Your task to perform on an android device: Google the capital of the United States Image 0: 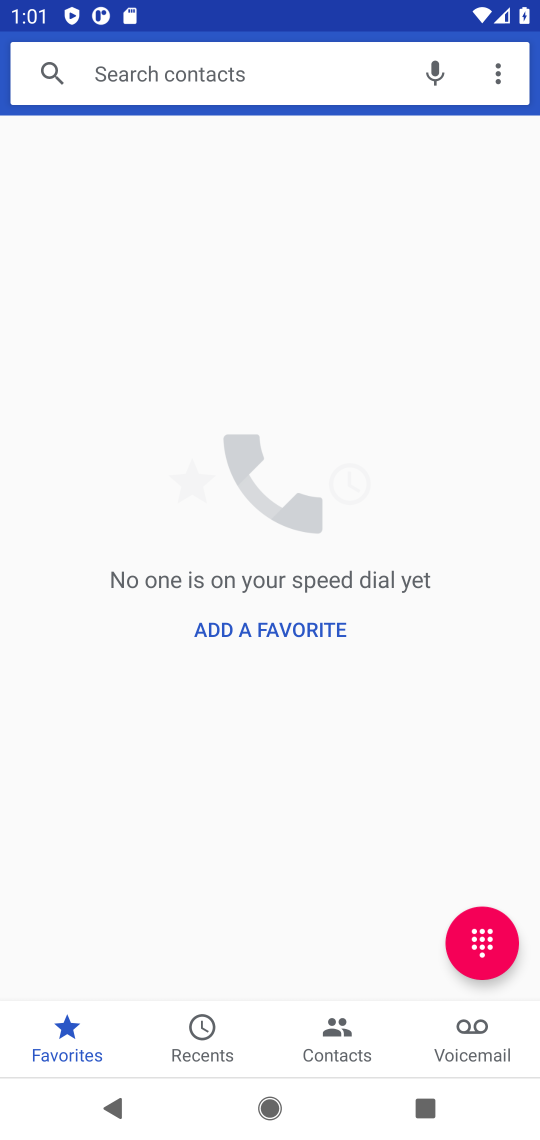
Step 0: press home button
Your task to perform on an android device: Google the capital of the United States Image 1: 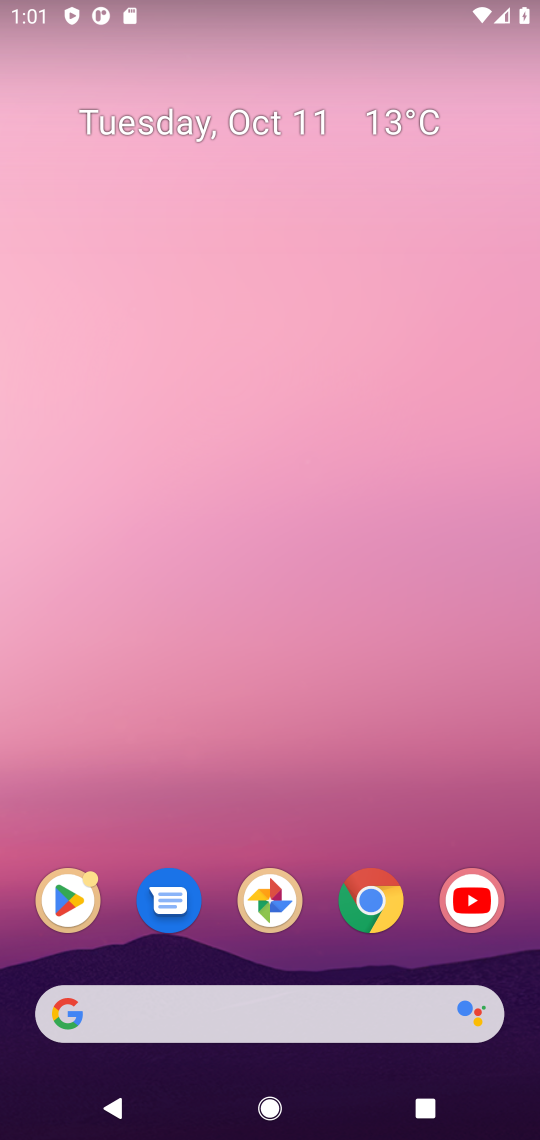
Step 1: click (352, 907)
Your task to perform on an android device: Google the capital of the United States Image 2: 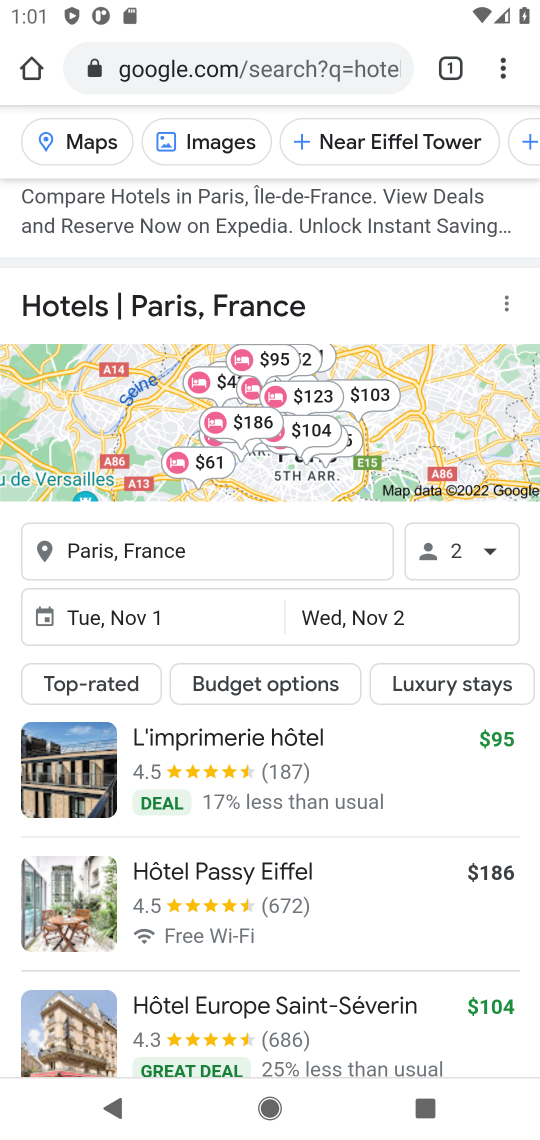
Step 2: click (308, 73)
Your task to perform on an android device: Google the capital of the United States Image 3: 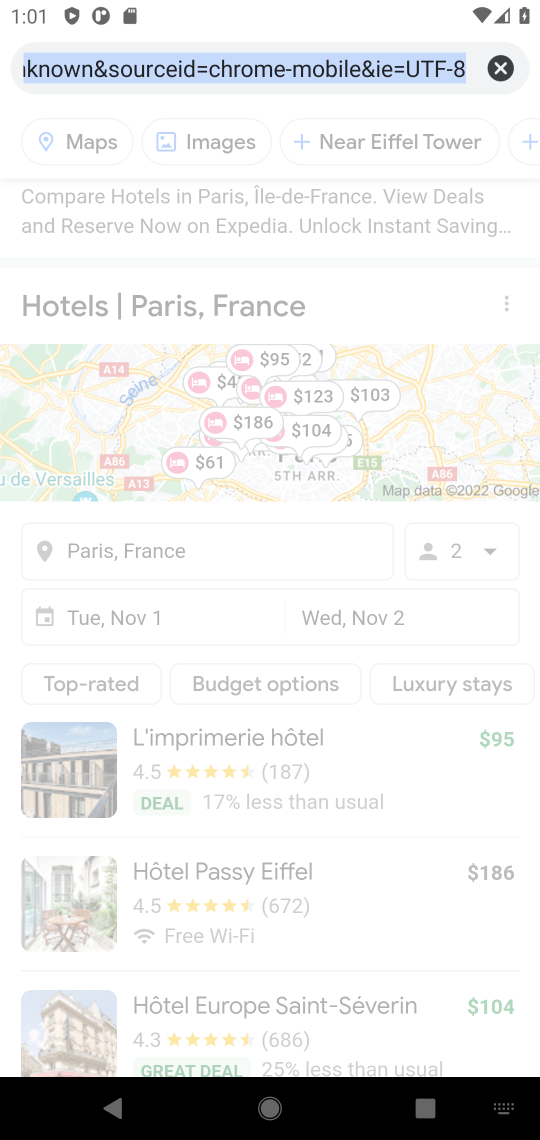
Step 3: type "capital of the United States"
Your task to perform on an android device: Google the capital of the United States Image 4: 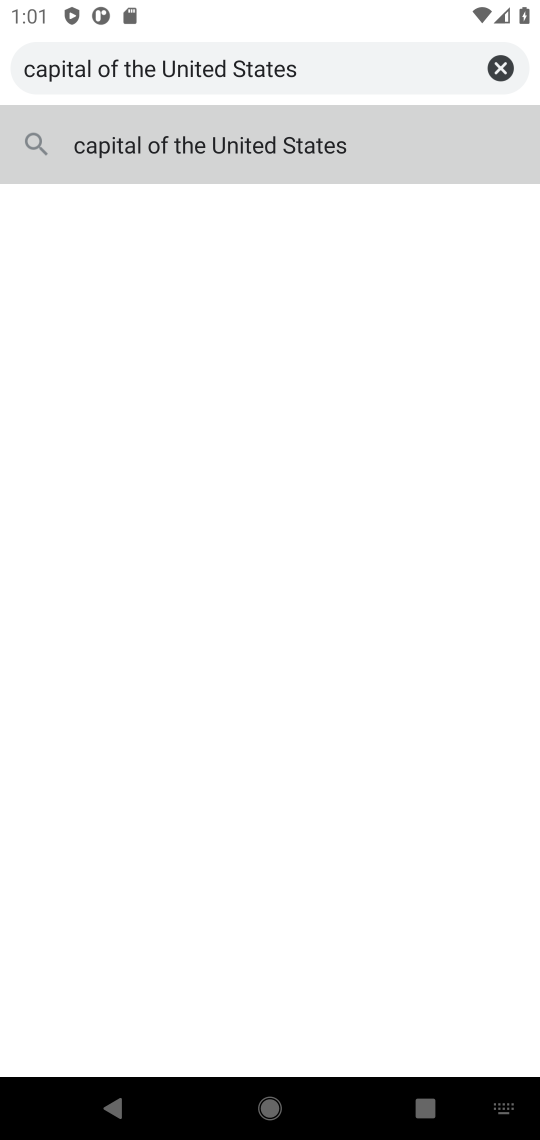
Step 4: click (308, 140)
Your task to perform on an android device: Google the capital of the United States Image 5: 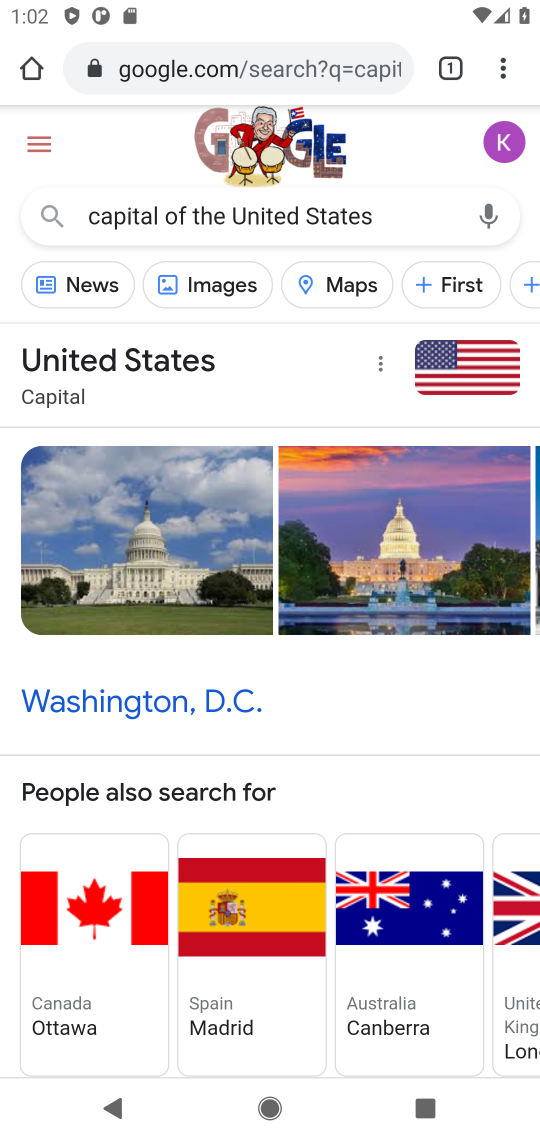
Step 5: task complete